Your task to perform on an android device: change alarm snooze length Image 0: 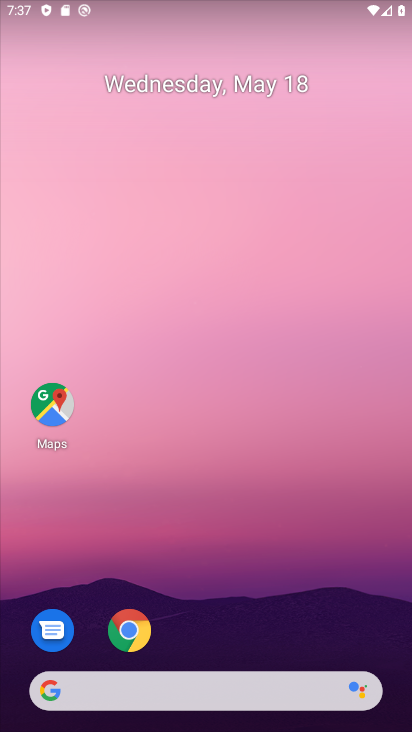
Step 0: drag from (271, 517) to (250, 61)
Your task to perform on an android device: change alarm snooze length Image 1: 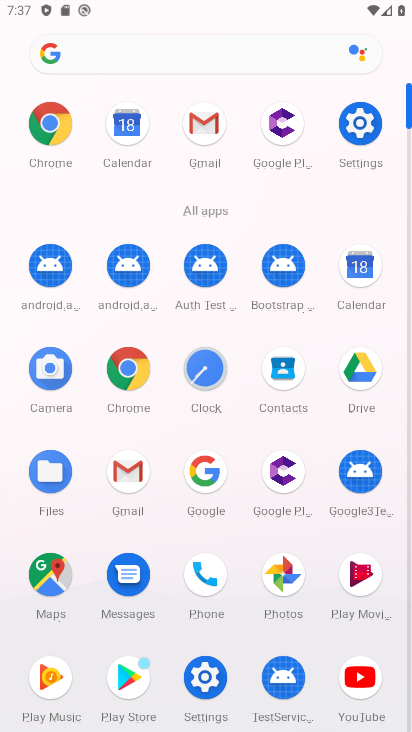
Step 1: click (204, 366)
Your task to perform on an android device: change alarm snooze length Image 2: 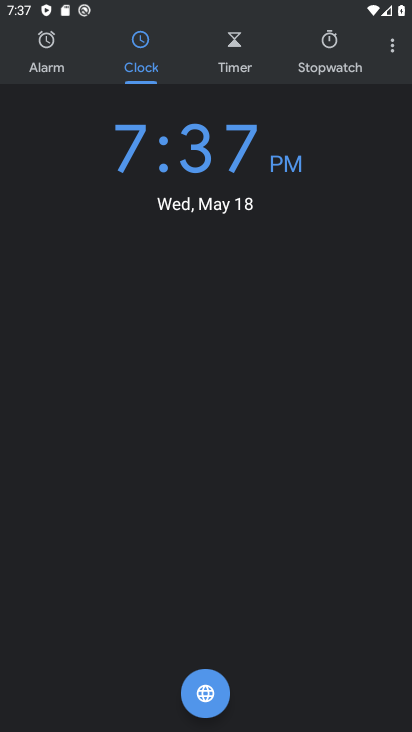
Step 2: click (398, 45)
Your task to perform on an android device: change alarm snooze length Image 3: 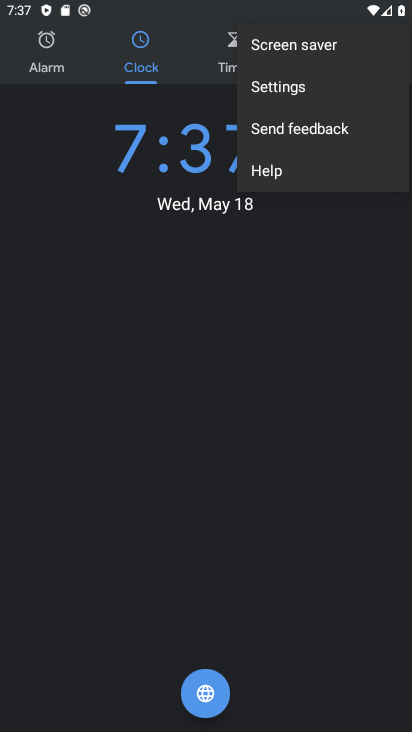
Step 3: click (295, 83)
Your task to perform on an android device: change alarm snooze length Image 4: 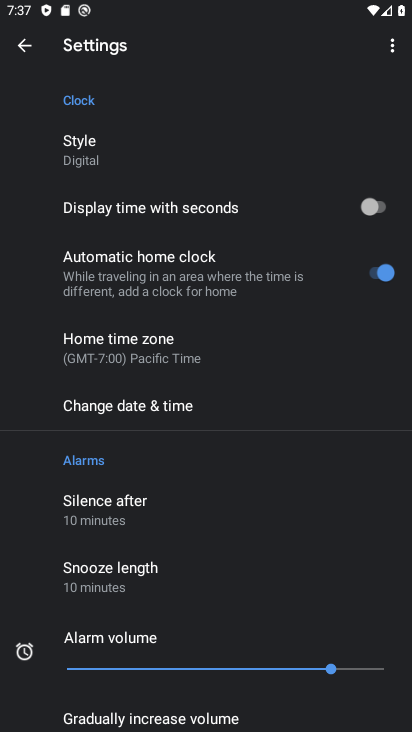
Step 4: drag from (121, 512) to (144, 123)
Your task to perform on an android device: change alarm snooze length Image 5: 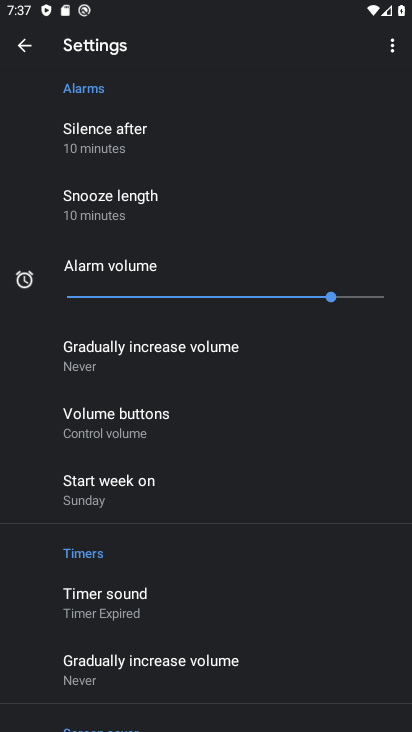
Step 5: click (124, 194)
Your task to perform on an android device: change alarm snooze length Image 6: 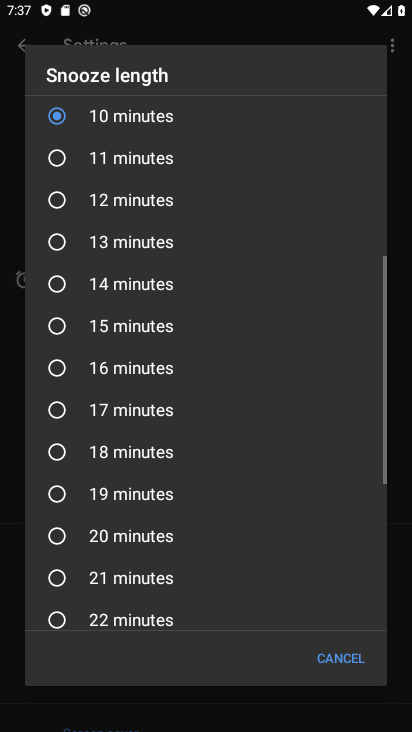
Step 6: click (91, 288)
Your task to perform on an android device: change alarm snooze length Image 7: 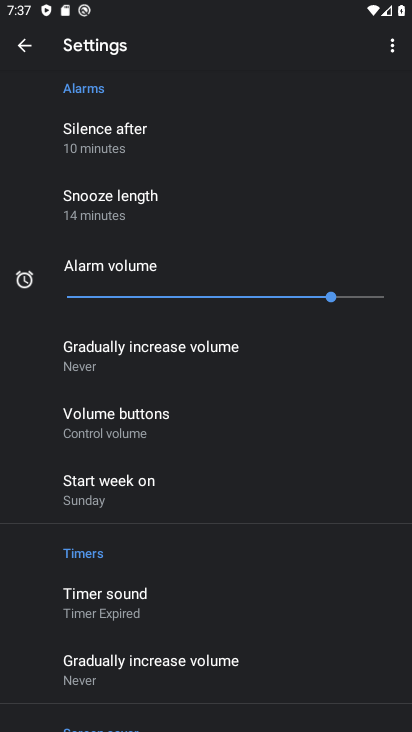
Step 7: task complete